Your task to perform on an android device: What's the weather today? Image 0: 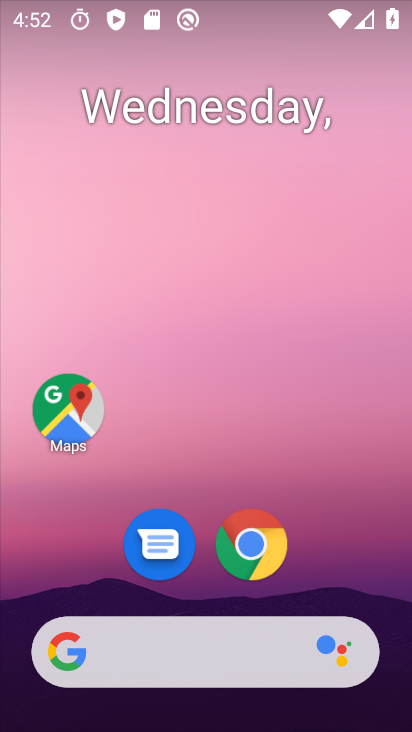
Step 0: drag from (204, 614) to (166, 116)
Your task to perform on an android device: What's the weather today? Image 1: 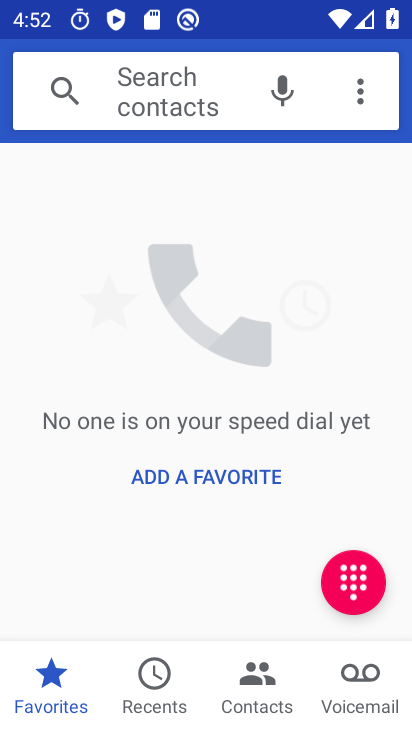
Step 1: press home button
Your task to perform on an android device: What's the weather today? Image 2: 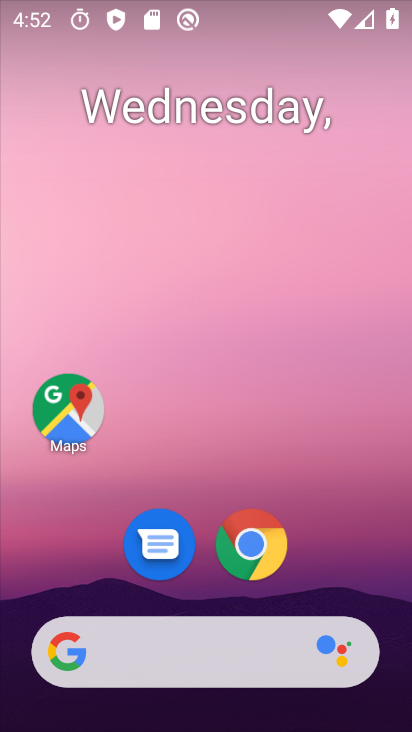
Step 2: click (192, 642)
Your task to perform on an android device: What's the weather today? Image 3: 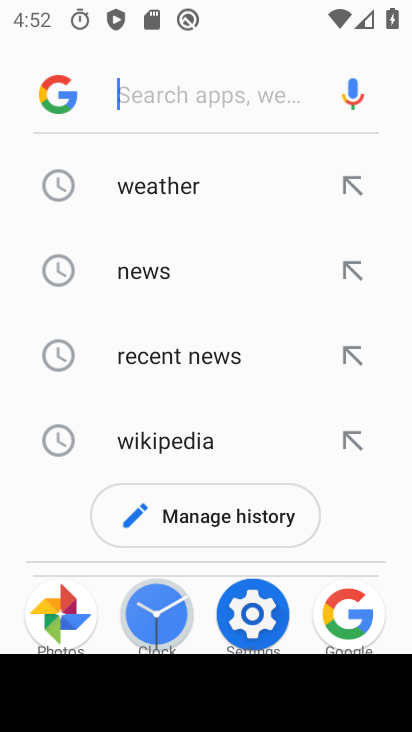
Step 3: click (196, 206)
Your task to perform on an android device: What's the weather today? Image 4: 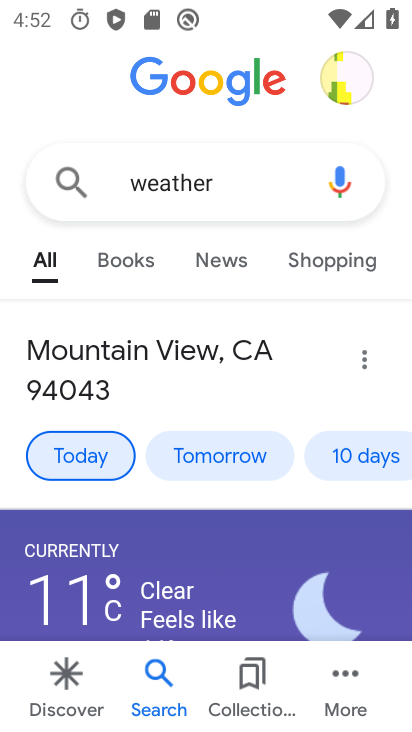
Step 4: click (97, 443)
Your task to perform on an android device: What's the weather today? Image 5: 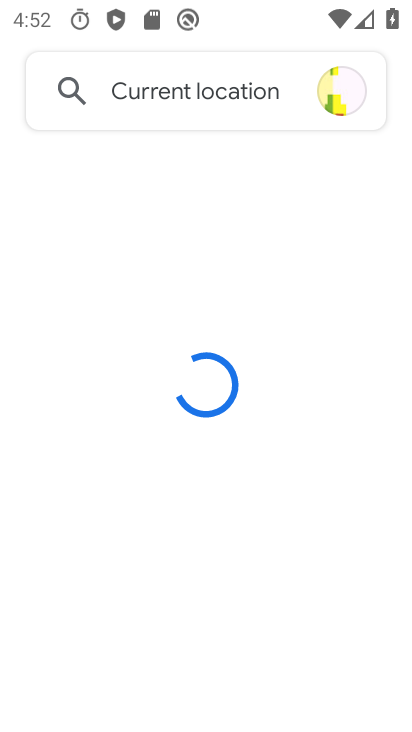
Step 5: task complete